Your task to perform on an android device: stop showing notifications on the lock screen Image 0: 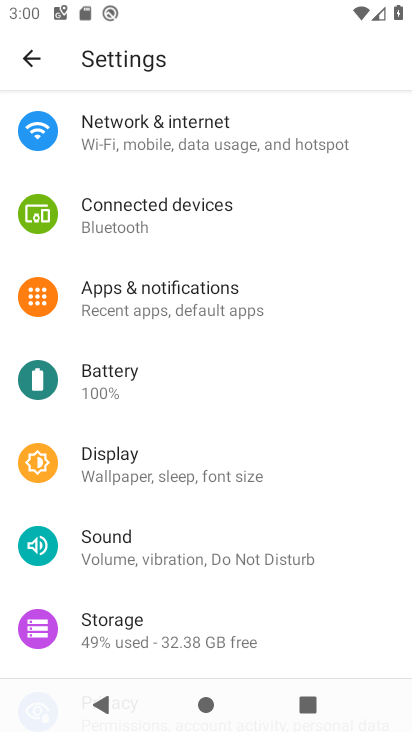
Step 0: drag from (349, 572) to (342, 419)
Your task to perform on an android device: stop showing notifications on the lock screen Image 1: 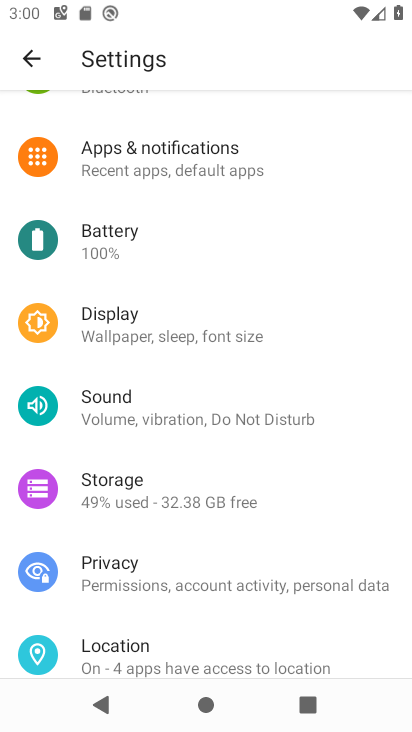
Step 1: drag from (349, 489) to (353, 326)
Your task to perform on an android device: stop showing notifications on the lock screen Image 2: 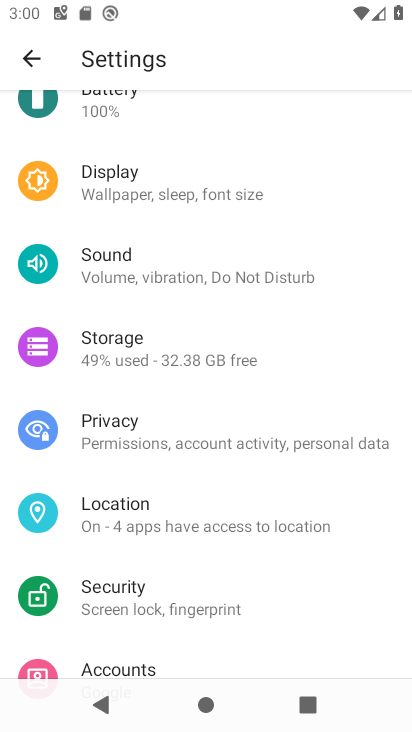
Step 2: drag from (357, 583) to (361, 369)
Your task to perform on an android device: stop showing notifications on the lock screen Image 3: 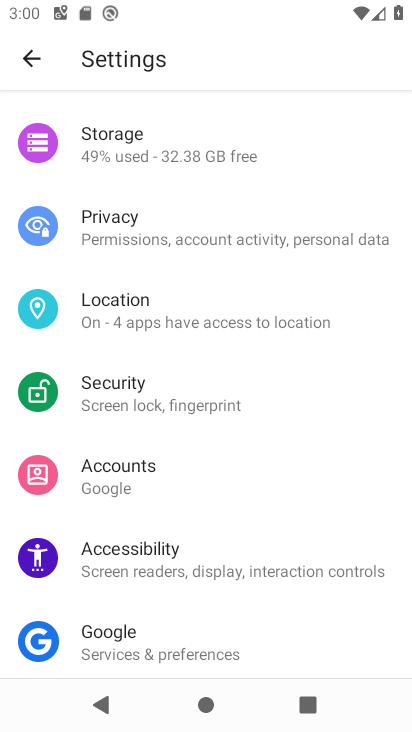
Step 3: drag from (367, 598) to (371, 405)
Your task to perform on an android device: stop showing notifications on the lock screen Image 4: 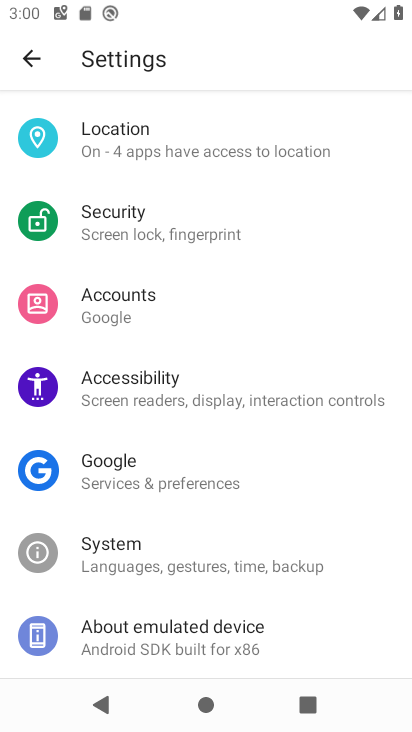
Step 4: drag from (340, 618) to (361, 445)
Your task to perform on an android device: stop showing notifications on the lock screen Image 5: 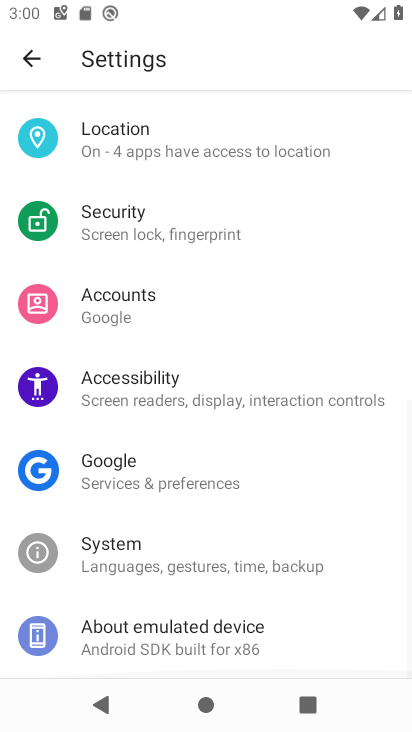
Step 5: drag from (343, 287) to (345, 550)
Your task to perform on an android device: stop showing notifications on the lock screen Image 6: 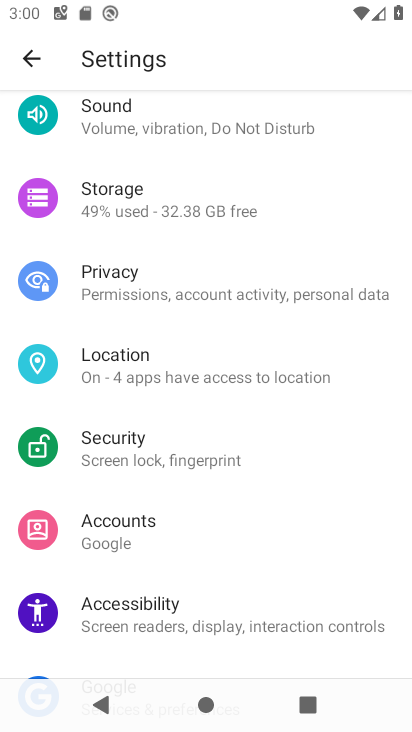
Step 6: drag from (371, 376) to (366, 555)
Your task to perform on an android device: stop showing notifications on the lock screen Image 7: 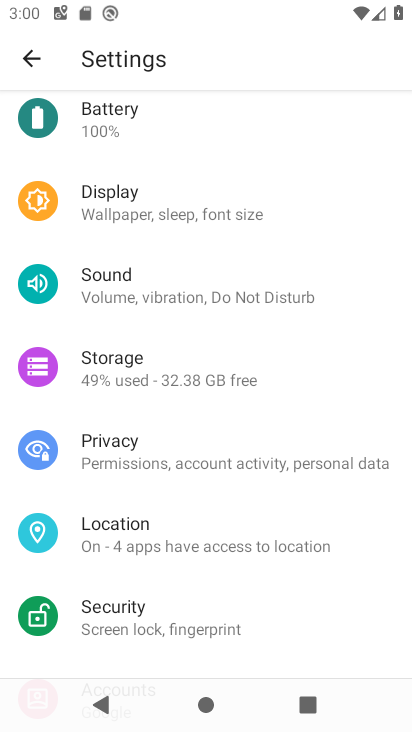
Step 7: drag from (368, 305) to (364, 522)
Your task to perform on an android device: stop showing notifications on the lock screen Image 8: 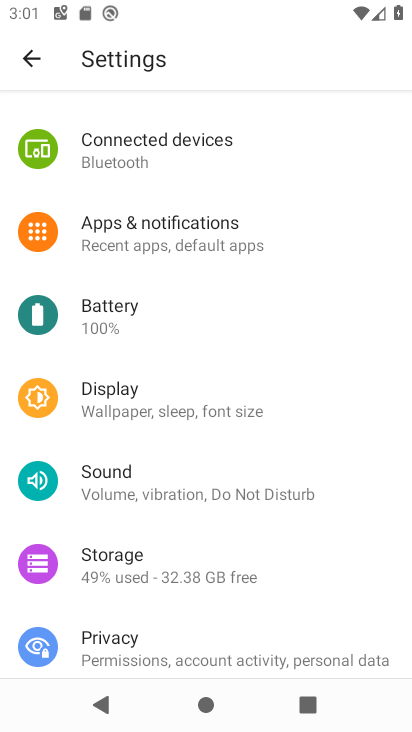
Step 8: drag from (329, 252) to (337, 446)
Your task to perform on an android device: stop showing notifications on the lock screen Image 9: 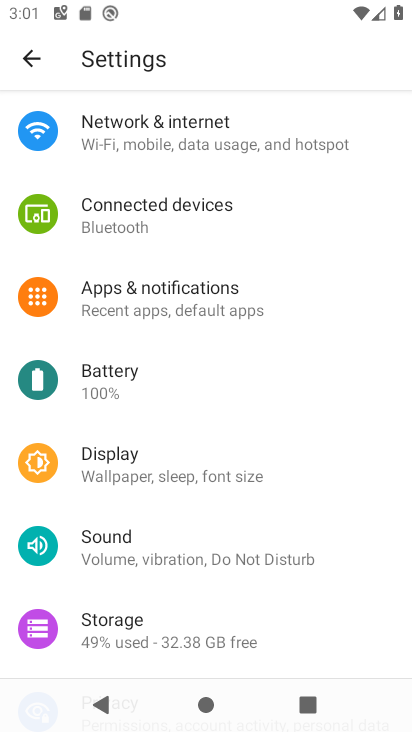
Step 9: click (261, 283)
Your task to perform on an android device: stop showing notifications on the lock screen Image 10: 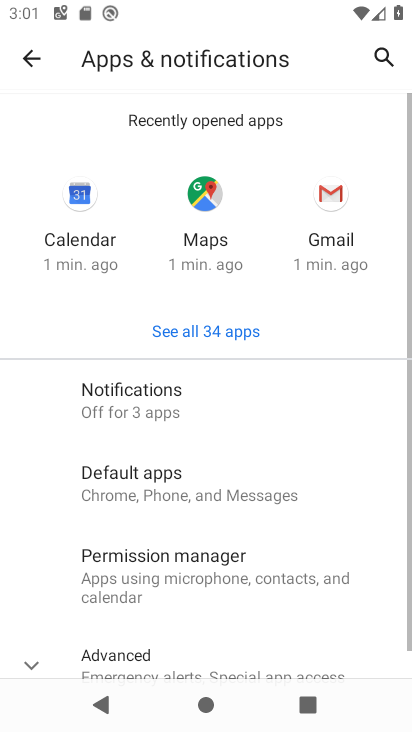
Step 10: drag from (321, 494) to (327, 365)
Your task to perform on an android device: stop showing notifications on the lock screen Image 11: 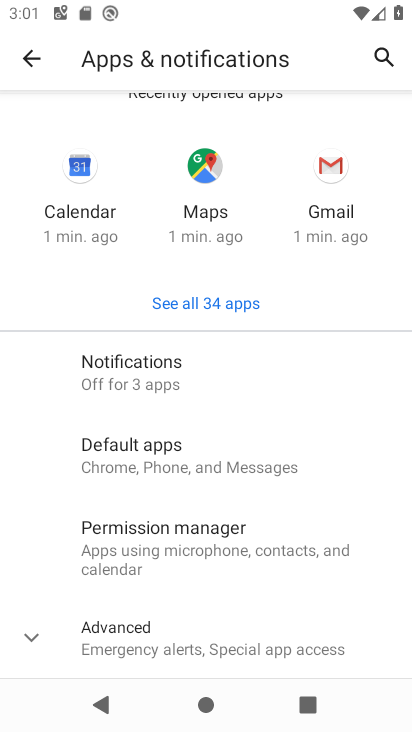
Step 11: click (173, 385)
Your task to perform on an android device: stop showing notifications on the lock screen Image 12: 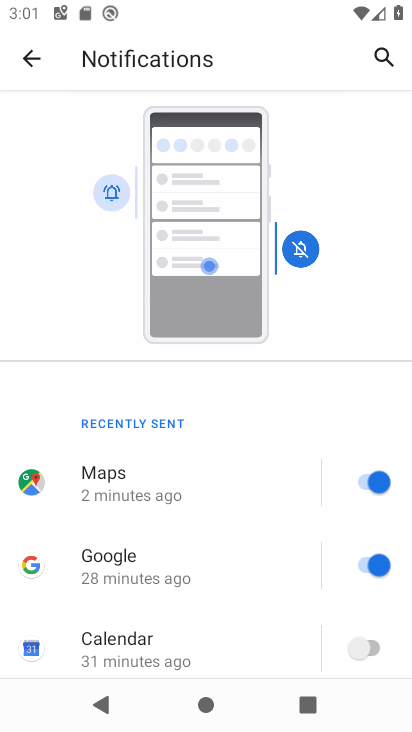
Step 12: drag from (279, 549) to (300, 366)
Your task to perform on an android device: stop showing notifications on the lock screen Image 13: 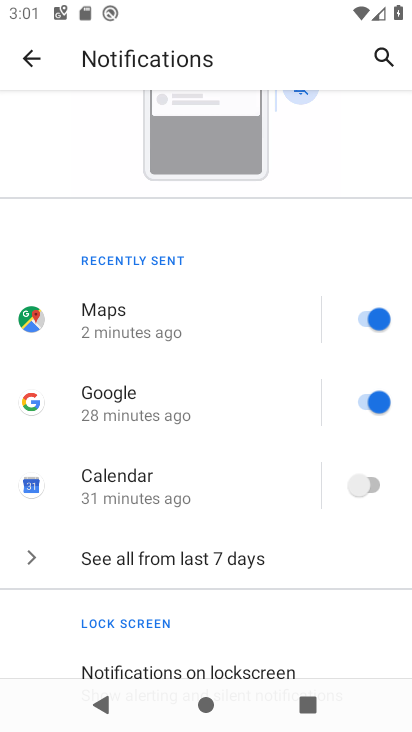
Step 13: drag from (262, 586) to (291, 455)
Your task to perform on an android device: stop showing notifications on the lock screen Image 14: 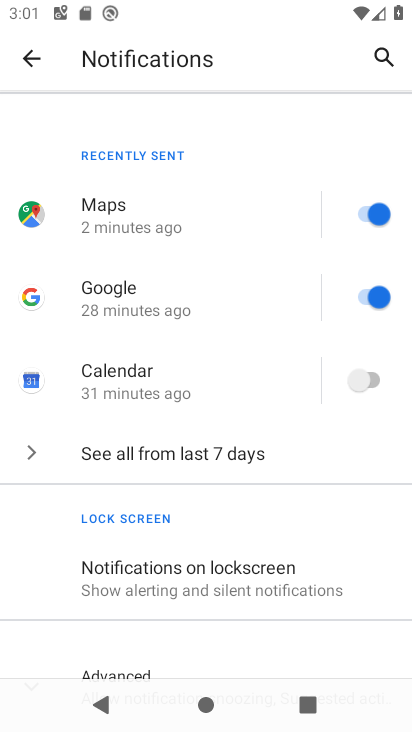
Step 14: click (240, 567)
Your task to perform on an android device: stop showing notifications on the lock screen Image 15: 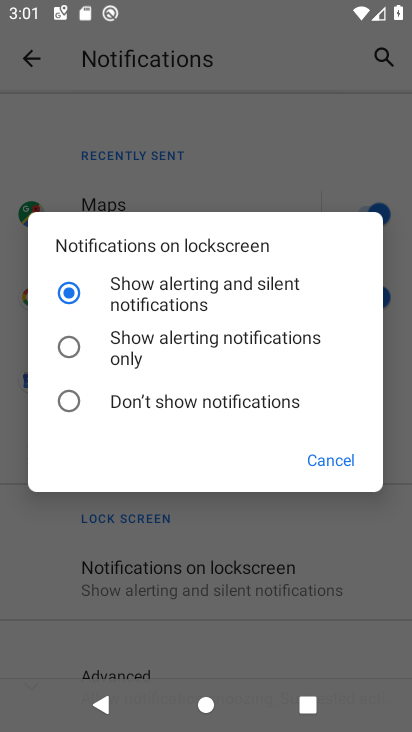
Step 15: click (167, 402)
Your task to perform on an android device: stop showing notifications on the lock screen Image 16: 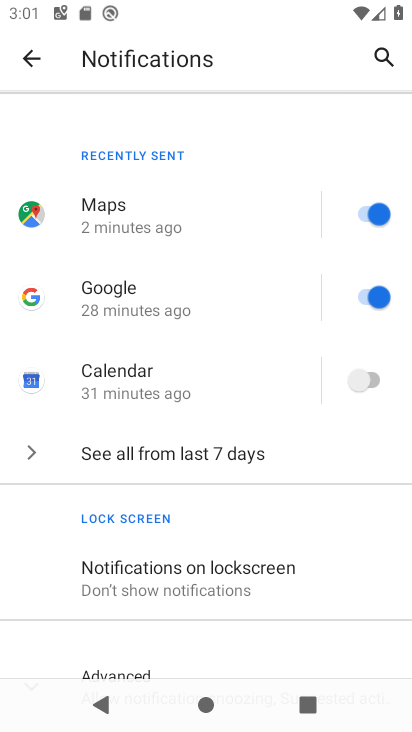
Step 16: task complete